Your task to perform on an android device: Show me recent news Image 0: 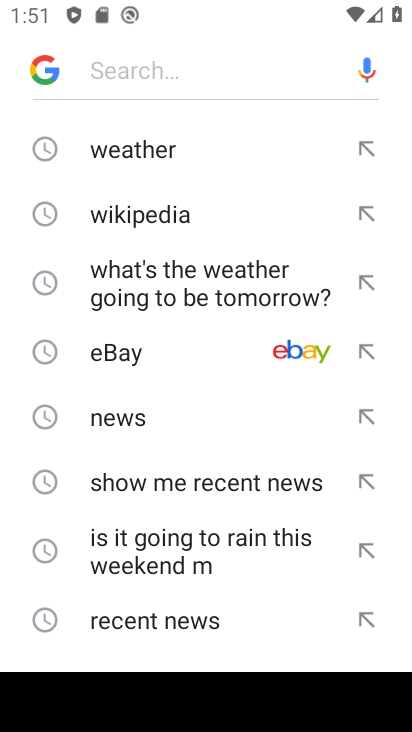
Step 0: press home button
Your task to perform on an android device: Show me recent news Image 1: 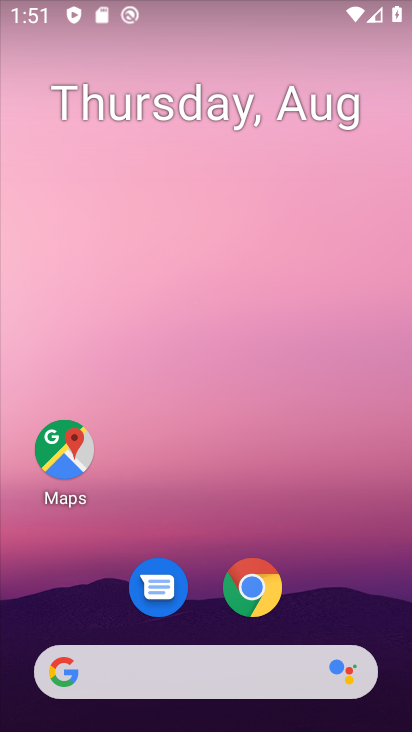
Step 1: task complete